Your task to perform on an android device: Open Chrome and go to settings Image 0: 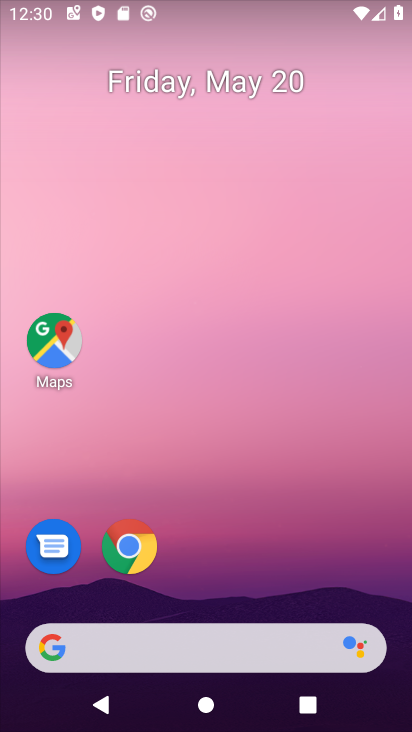
Step 0: click (142, 544)
Your task to perform on an android device: Open Chrome and go to settings Image 1: 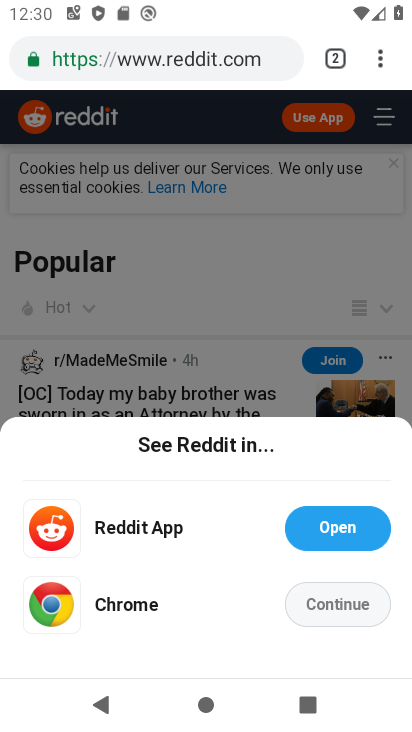
Step 1: click (371, 57)
Your task to perform on an android device: Open Chrome and go to settings Image 2: 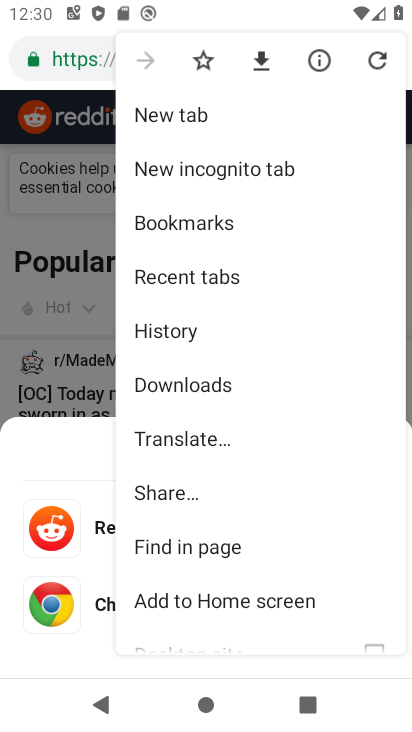
Step 2: drag from (234, 465) to (267, 247)
Your task to perform on an android device: Open Chrome and go to settings Image 3: 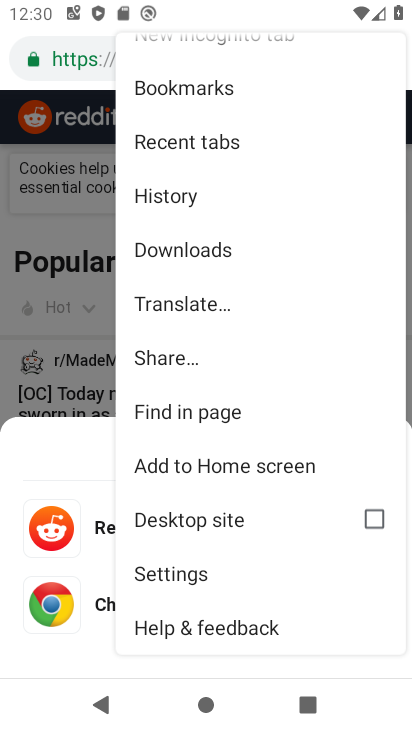
Step 3: click (198, 568)
Your task to perform on an android device: Open Chrome and go to settings Image 4: 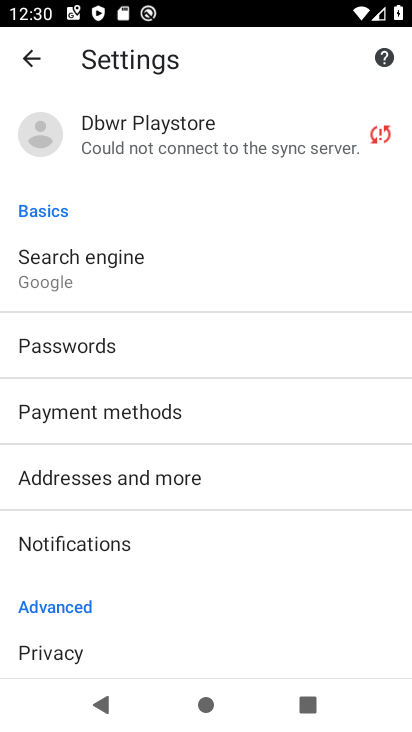
Step 4: task complete